Your task to perform on an android device: open sync settings in chrome Image 0: 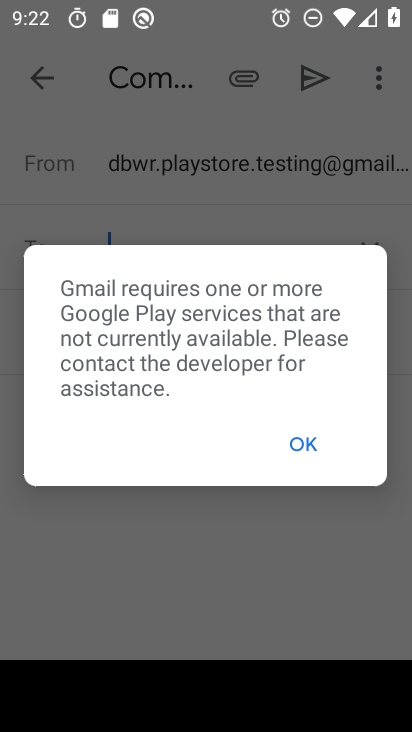
Step 0: press home button
Your task to perform on an android device: open sync settings in chrome Image 1: 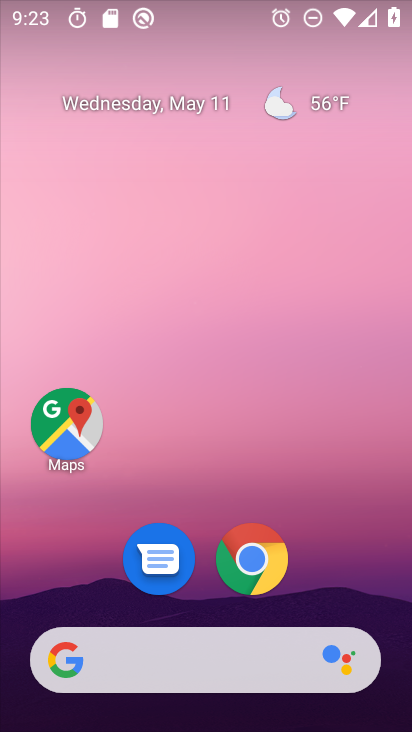
Step 1: click (254, 554)
Your task to perform on an android device: open sync settings in chrome Image 2: 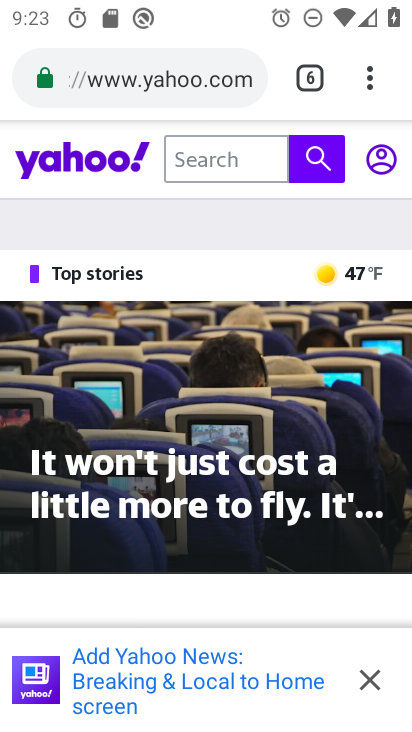
Step 2: click (378, 76)
Your task to perform on an android device: open sync settings in chrome Image 3: 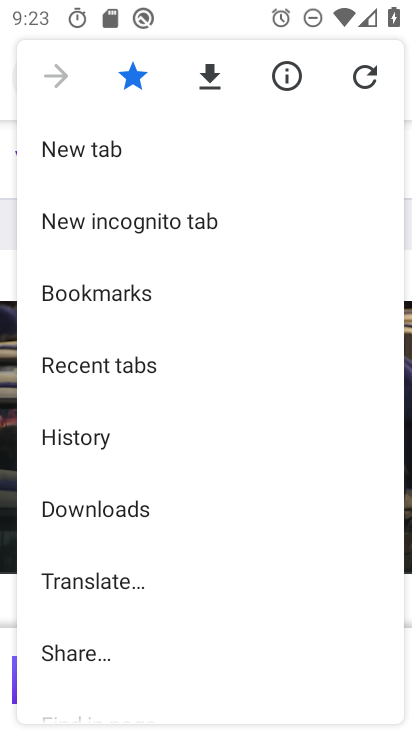
Step 3: drag from (251, 607) to (260, 319)
Your task to perform on an android device: open sync settings in chrome Image 4: 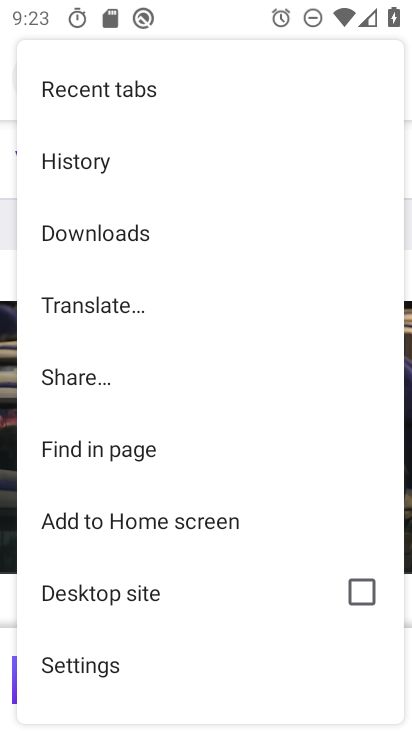
Step 4: click (113, 659)
Your task to perform on an android device: open sync settings in chrome Image 5: 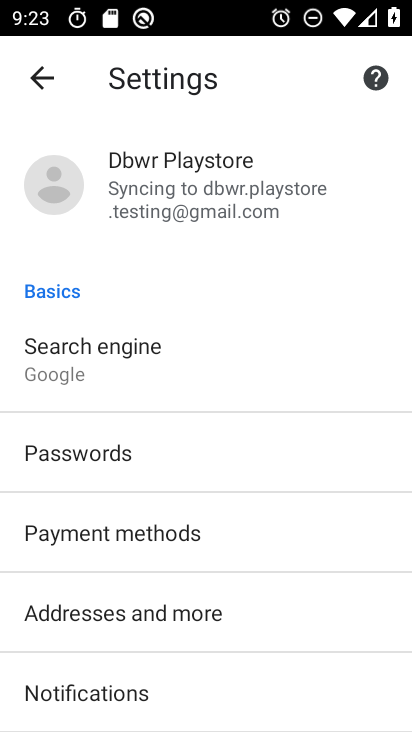
Step 5: click (176, 198)
Your task to perform on an android device: open sync settings in chrome Image 6: 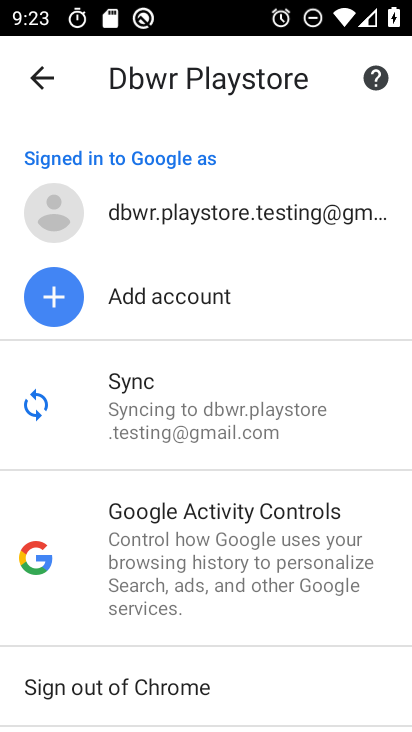
Step 6: click (206, 407)
Your task to perform on an android device: open sync settings in chrome Image 7: 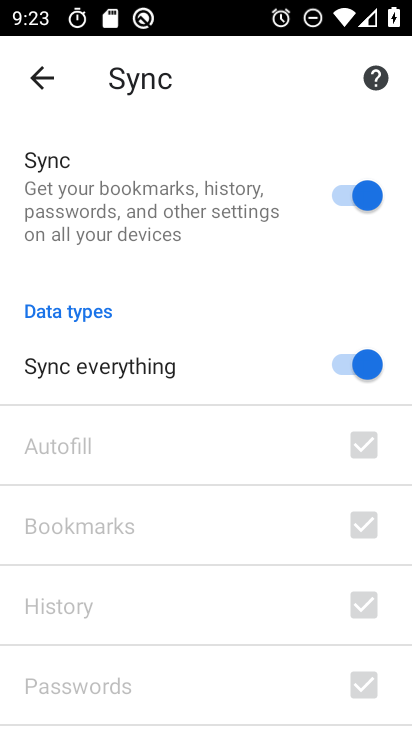
Step 7: task complete